Your task to perform on an android device: Show me recent news Image 0: 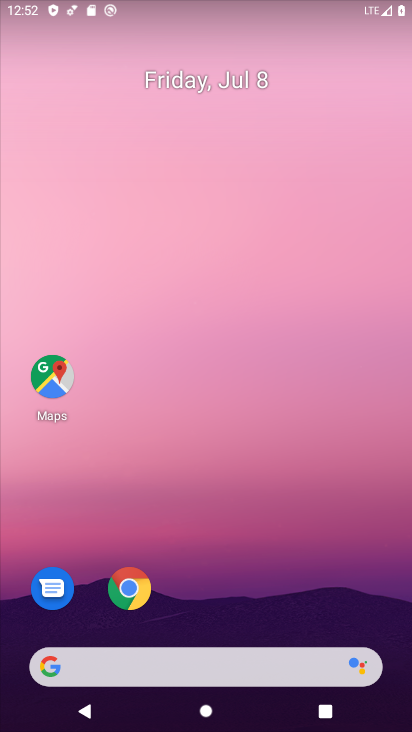
Step 0: drag from (223, 530) to (242, 157)
Your task to perform on an android device: Show me recent news Image 1: 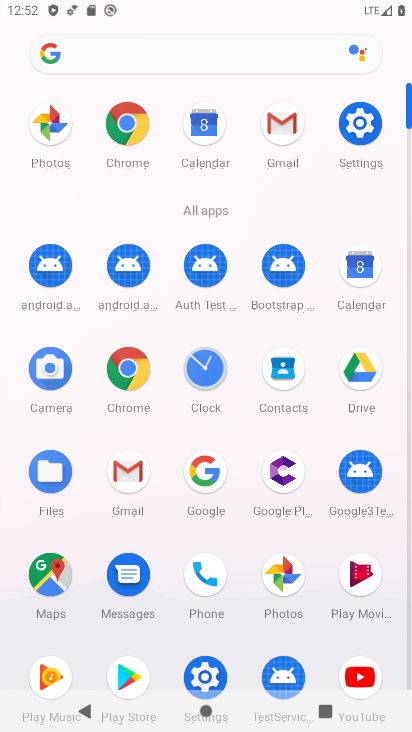
Step 1: click (216, 56)
Your task to perform on an android device: Show me recent news Image 2: 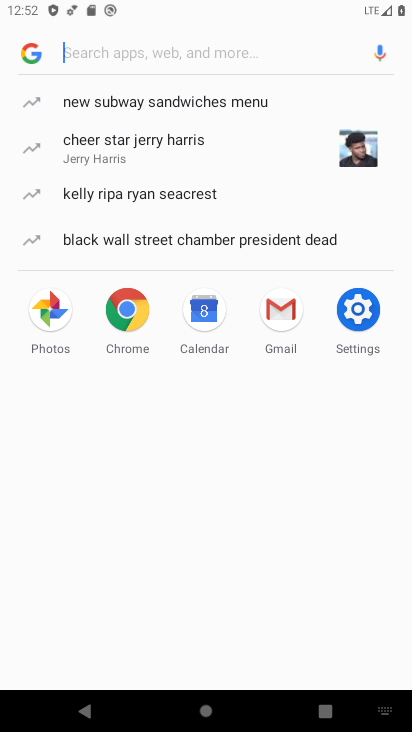
Step 2: type "recent news"
Your task to perform on an android device: Show me recent news Image 3: 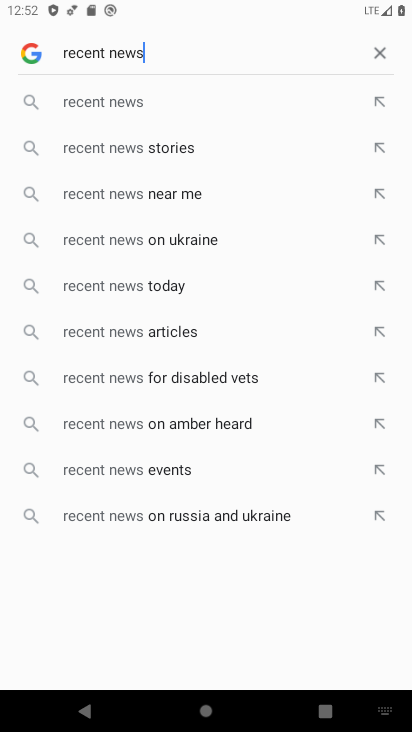
Step 3: click (131, 100)
Your task to perform on an android device: Show me recent news Image 4: 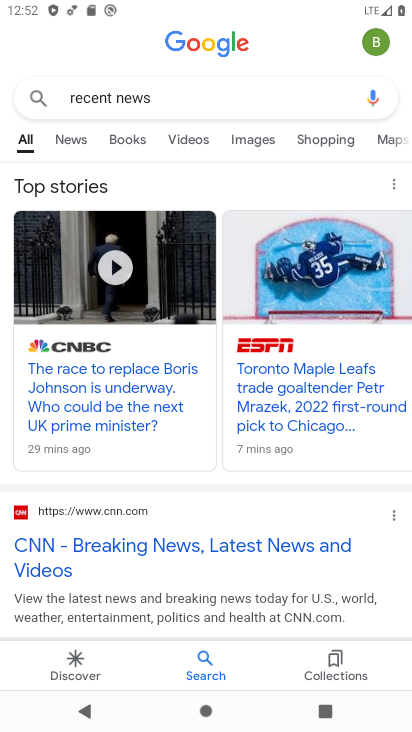
Step 4: task complete